Your task to perform on an android device: toggle location history Image 0: 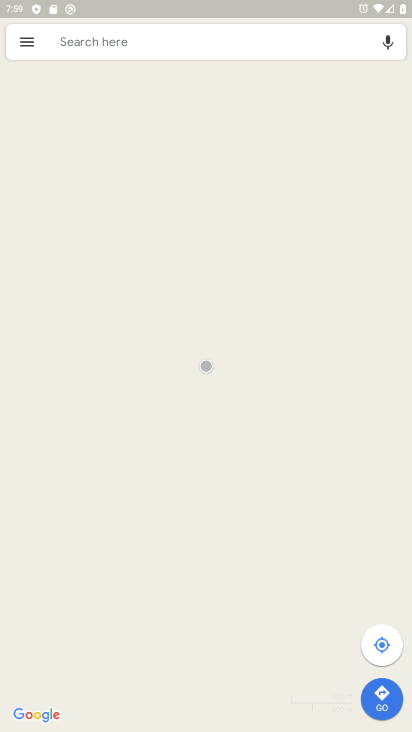
Step 0: press home button
Your task to perform on an android device: toggle location history Image 1: 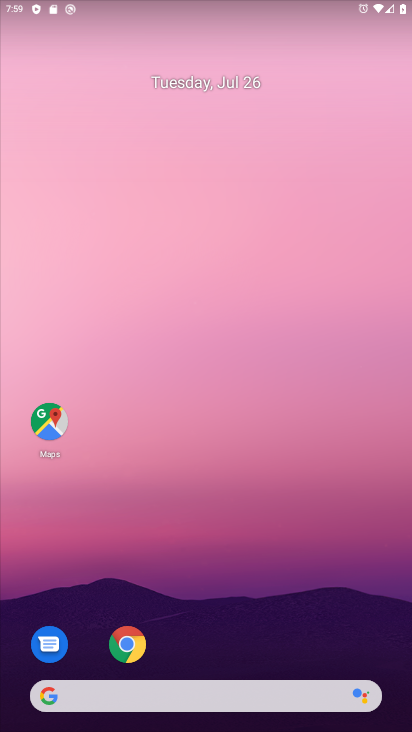
Step 1: drag from (214, 697) to (264, 293)
Your task to perform on an android device: toggle location history Image 2: 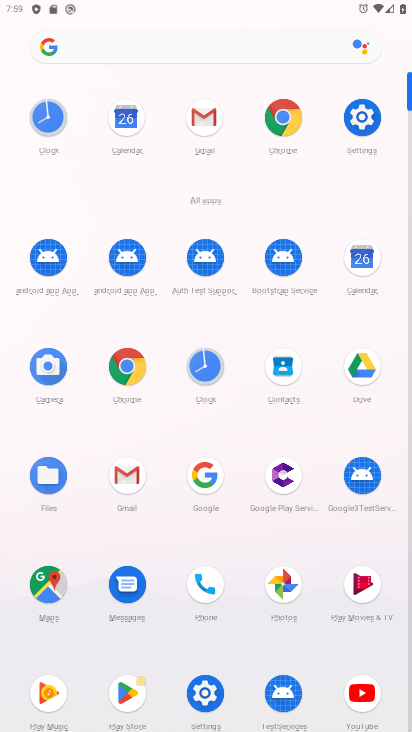
Step 2: click (371, 116)
Your task to perform on an android device: toggle location history Image 3: 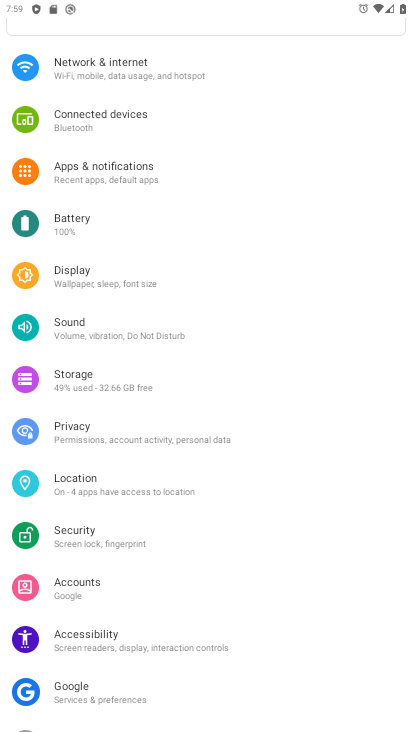
Step 3: click (68, 469)
Your task to perform on an android device: toggle location history Image 4: 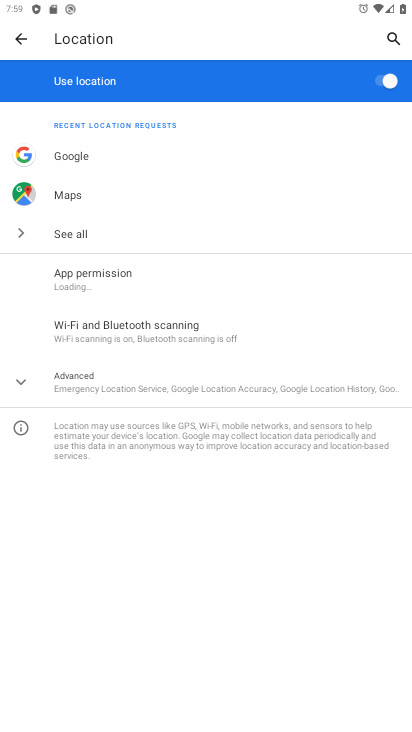
Step 4: click (103, 379)
Your task to perform on an android device: toggle location history Image 5: 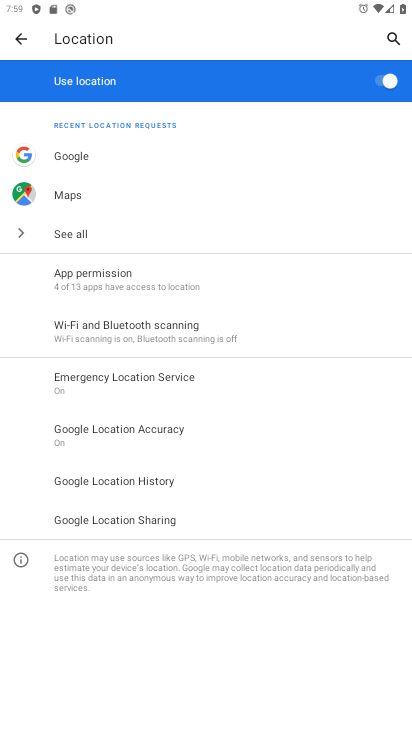
Step 5: click (103, 470)
Your task to perform on an android device: toggle location history Image 6: 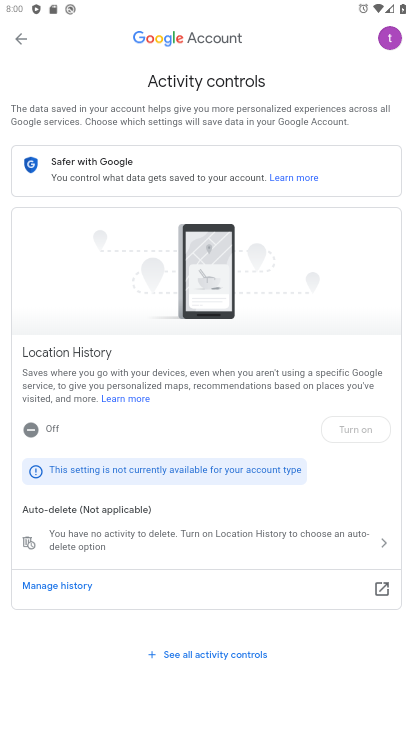
Step 6: click (41, 424)
Your task to perform on an android device: toggle location history Image 7: 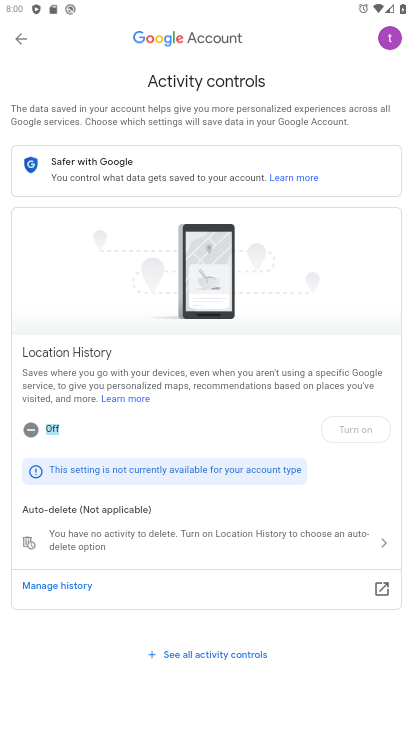
Step 7: click (41, 424)
Your task to perform on an android device: toggle location history Image 8: 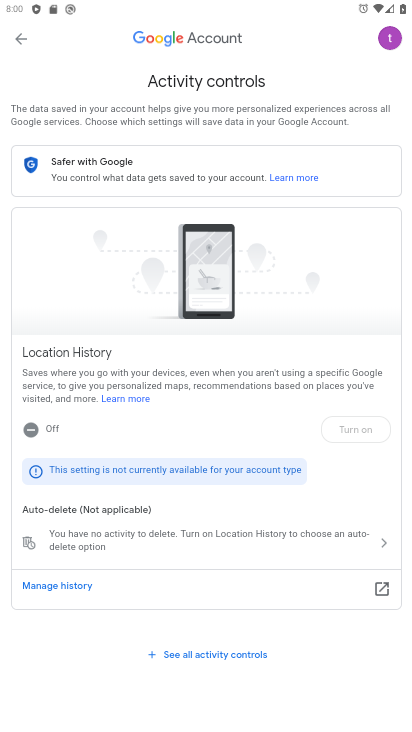
Step 8: click (33, 431)
Your task to perform on an android device: toggle location history Image 9: 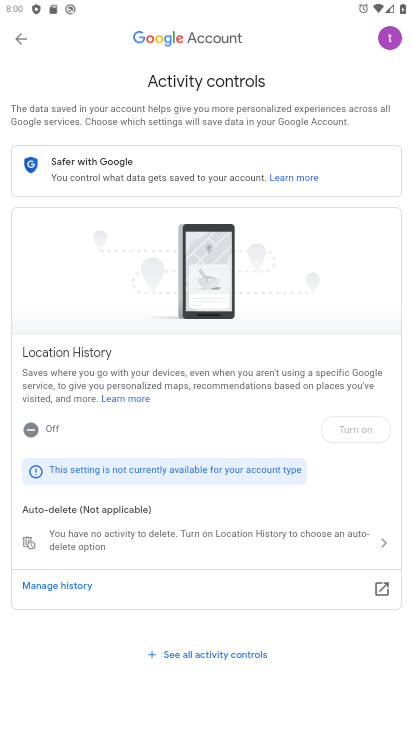
Step 9: click (353, 442)
Your task to perform on an android device: toggle location history Image 10: 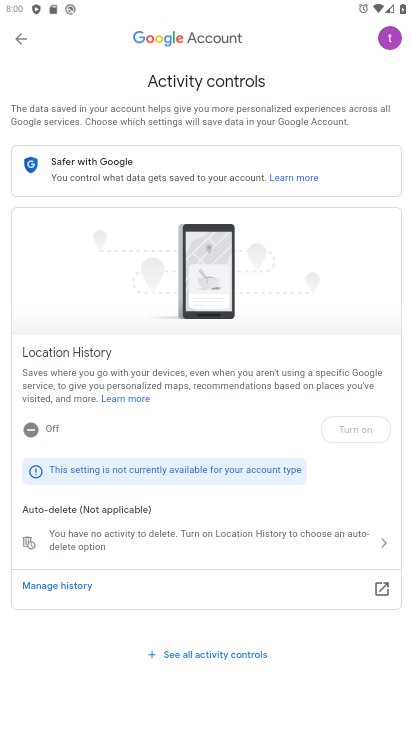
Step 10: click (353, 432)
Your task to perform on an android device: toggle location history Image 11: 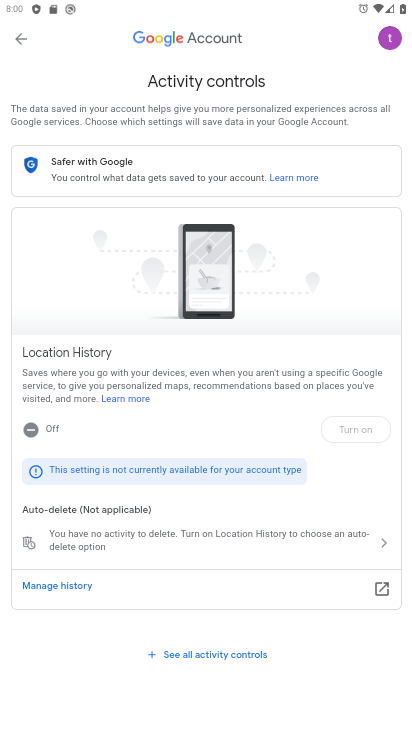
Step 11: click (353, 432)
Your task to perform on an android device: toggle location history Image 12: 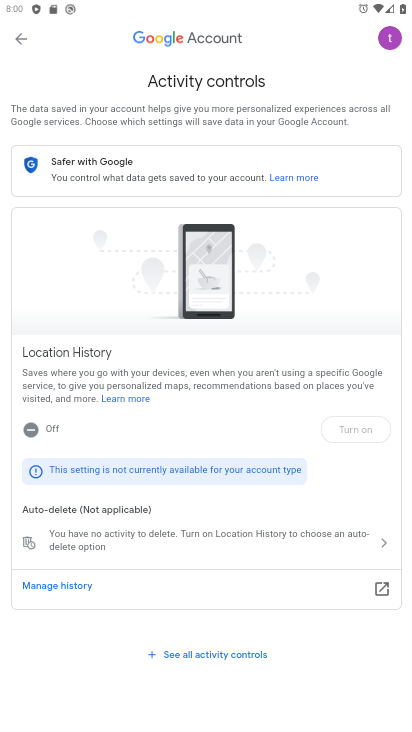
Step 12: click (353, 432)
Your task to perform on an android device: toggle location history Image 13: 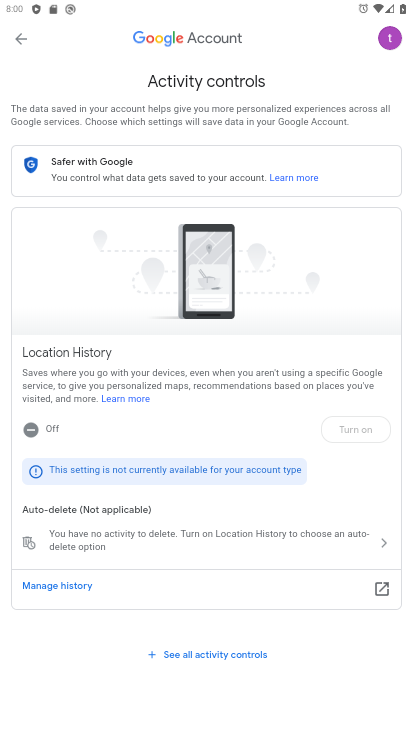
Step 13: click (351, 427)
Your task to perform on an android device: toggle location history Image 14: 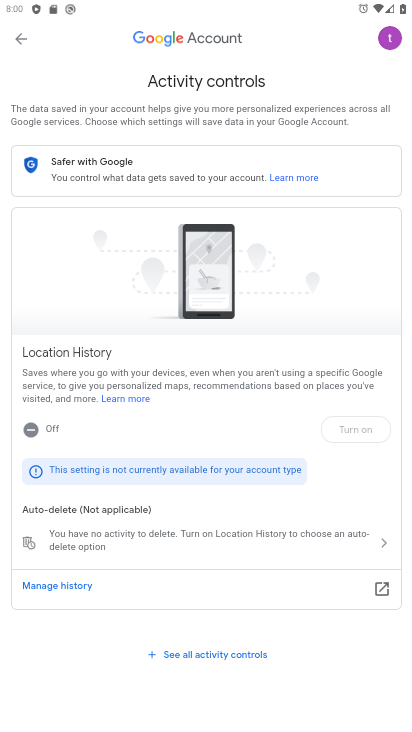
Step 14: click (347, 422)
Your task to perform on an android device: toggle location history Image 15: 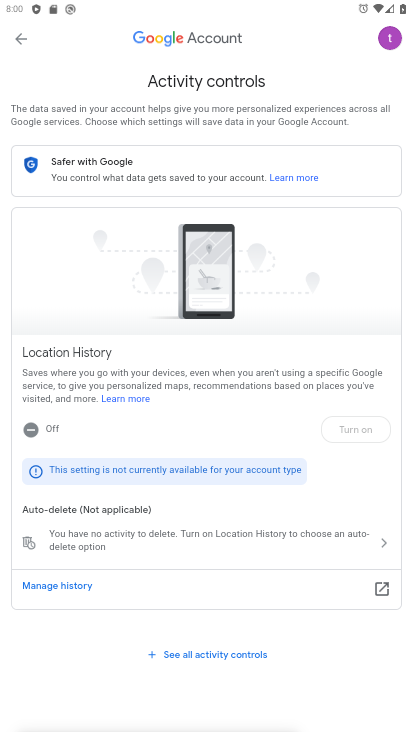
Step 15: click (347, 422)
Your task to perform on an android device: toggle location history Image 16: 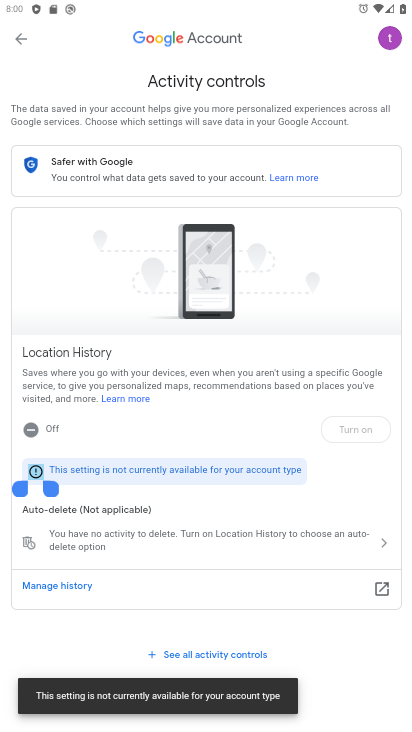
Step 16: click (54, 422)
Your task to perform on an android device: toggle location history Image 17: 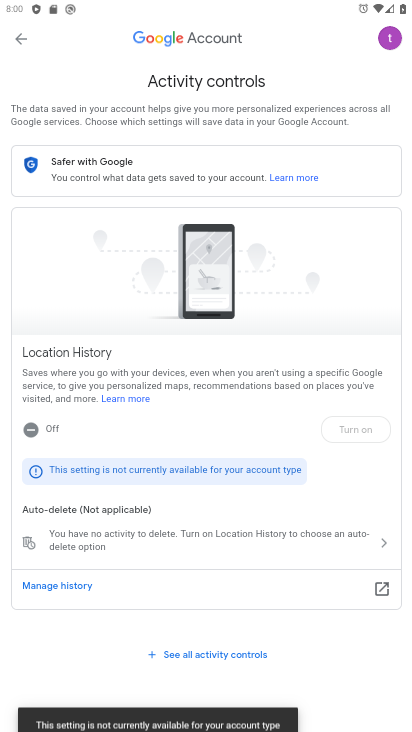
Step 17: click (134, 424)
Your task to perform on an android device: toggle location history Image 18: 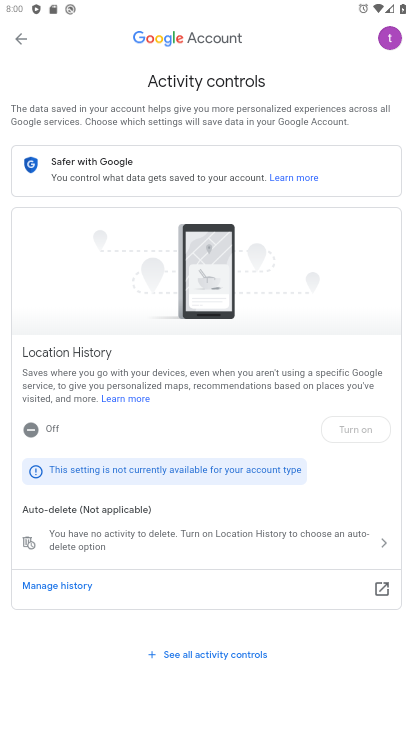
Step 18: task complete